Your task to perform on an android device: change the clock display to show seconds Image 0: 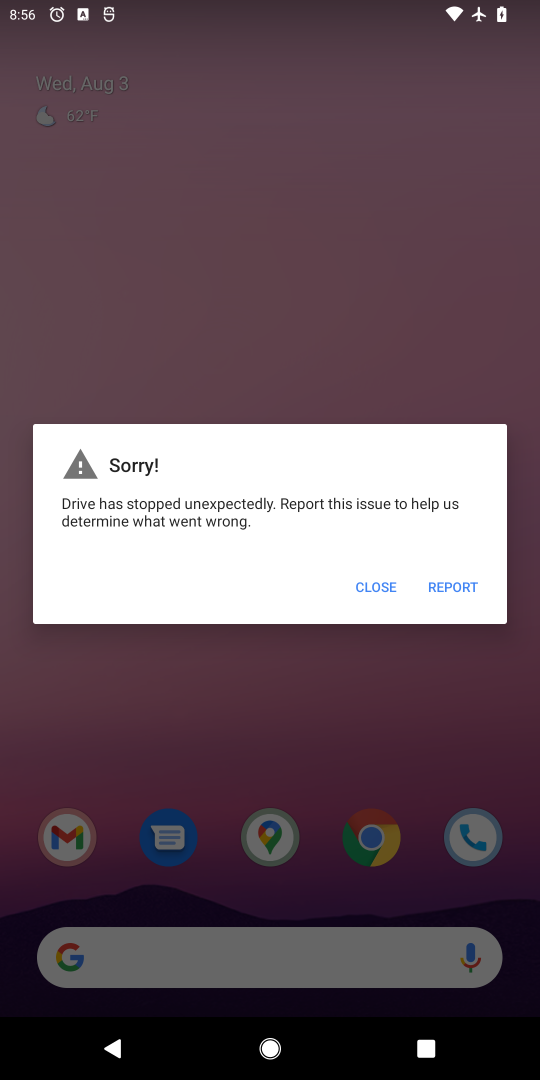
Step 0: click (376, 586)
Your task to perform on an android device: change the clock display to show seconds Image 1: 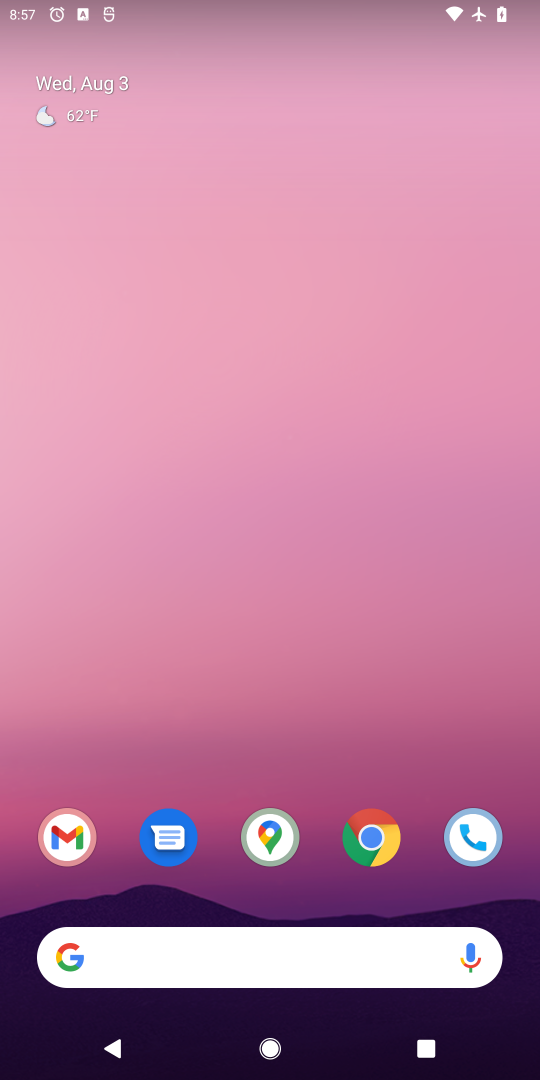
Step 1: drag from (243, 738) to (336, 208)
Your task to perform on an android device: change the clock display to show seconds Image 2: 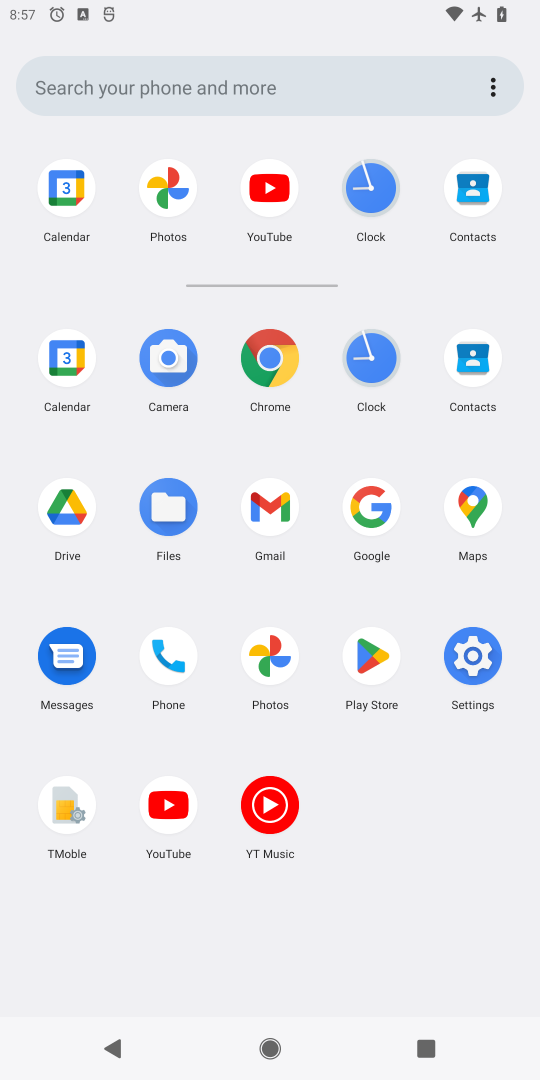
Step 2: click (379, 200)
Your task to perform on an android device: change the clock display to show seconds Image 3: 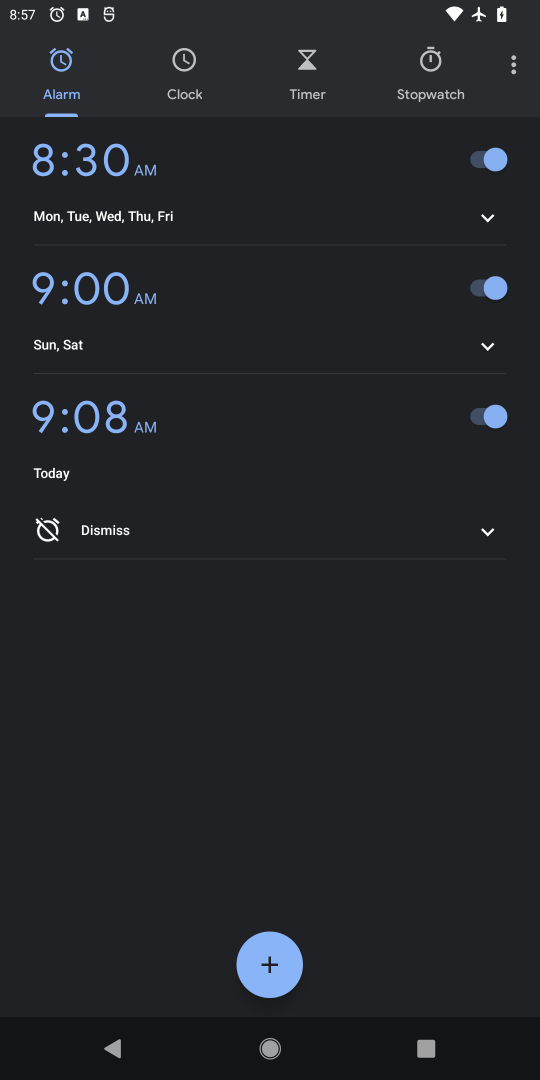
Step 3: click (524, 74)
Your task to perform on an android device: change the clock display to show seconds Image 4: 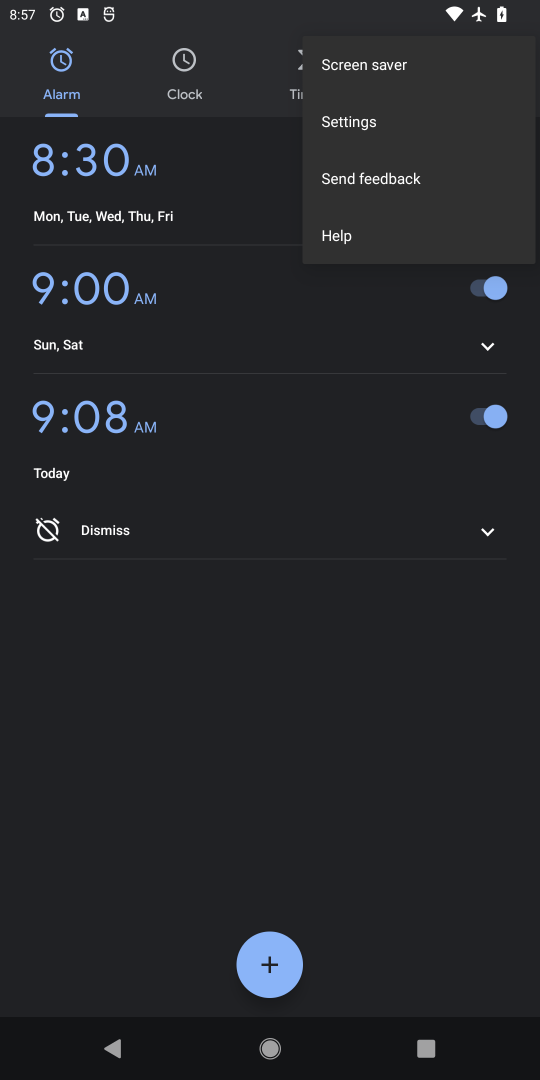
Step 4: click (367, 127)
Your task to perform on an android device: change the clock display to show seconds Image 5: 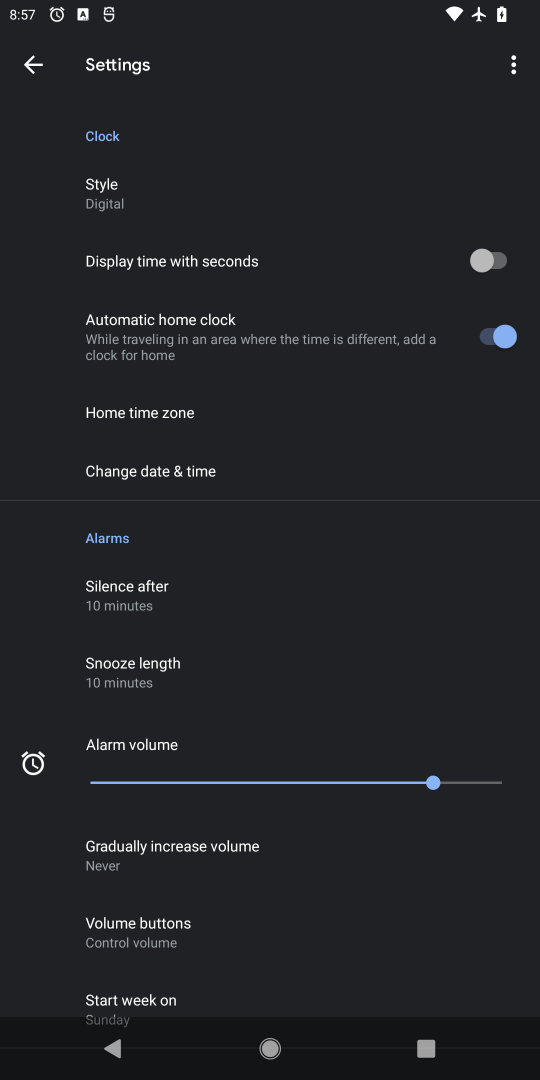
Step 5: click (484, 264)
Your task to perform on an android device: change the clock display to show seconds Image 6: 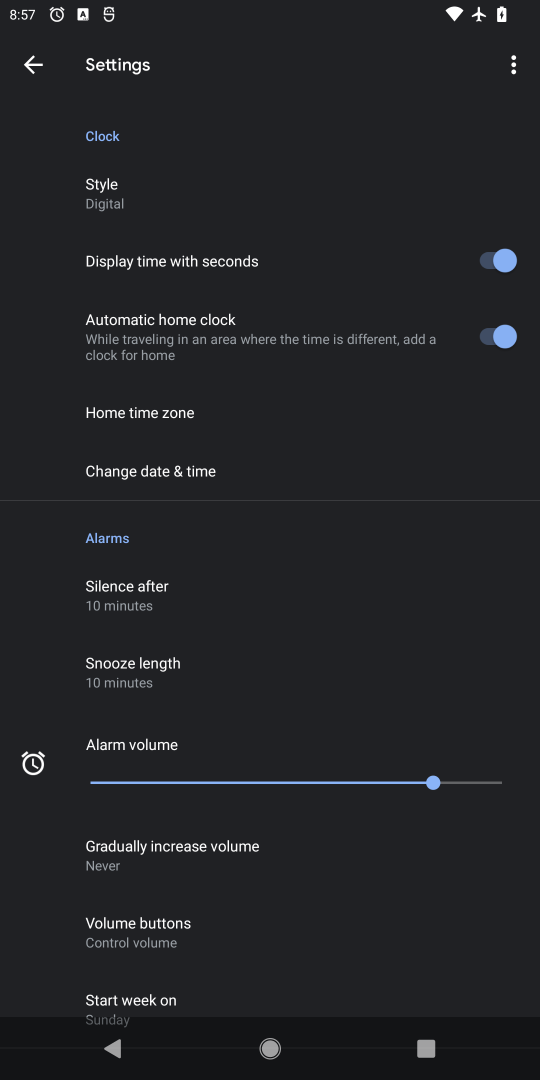
Step 6: task complete